Your task to perform on an android device: turn on sleep mode Image 0: 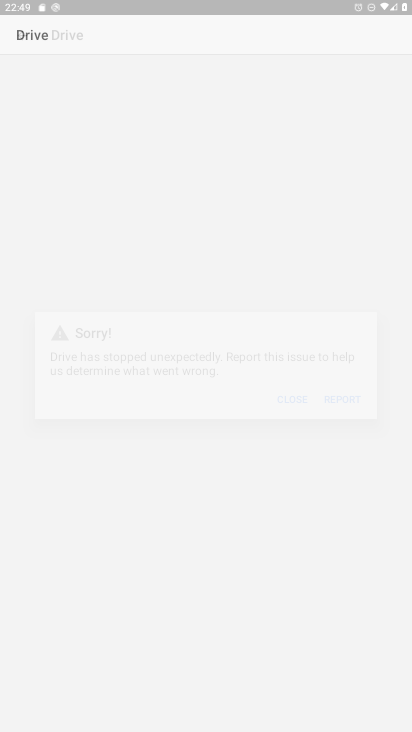
Step 0: drag from (282, 712) to (220, 127)
Your task to perform on an android device: turn on sleep mode Image 1: 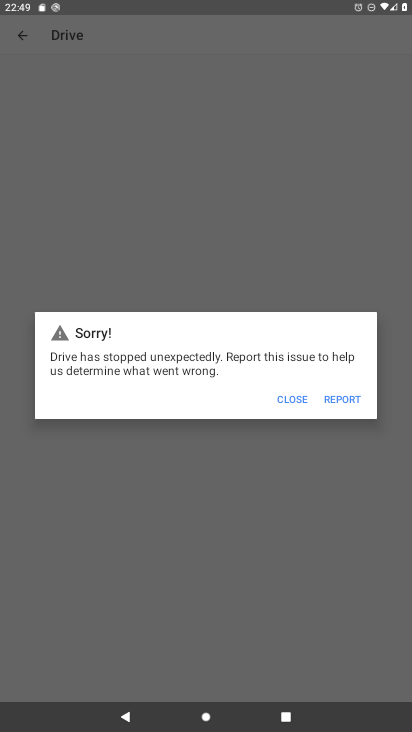
Step 1: press home button
Your task to perform on an android device: turn on sleep mode Image 2: 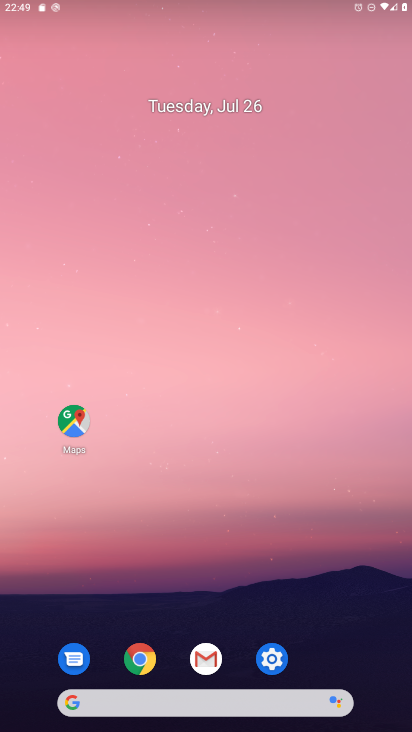
Step 2: drag from (276, 618) to (221, 244)
Your task to perform on an android device: turn on sleep mode Image 3: 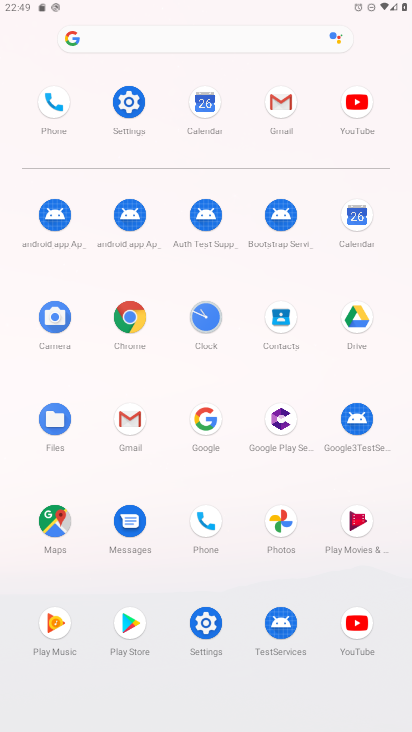
Step 3: click (125, 110)
Your task to perform on an android device: turn on sleep mode Image 4: 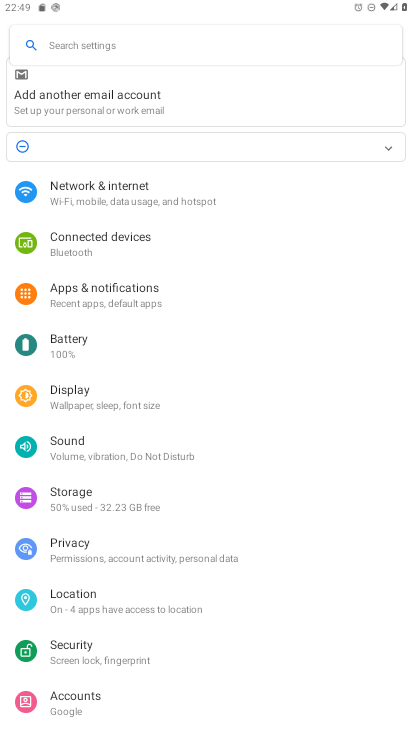
Step 4: click (87, 45)
Your task to perform on an android device: turn on sleep mode Image 5: 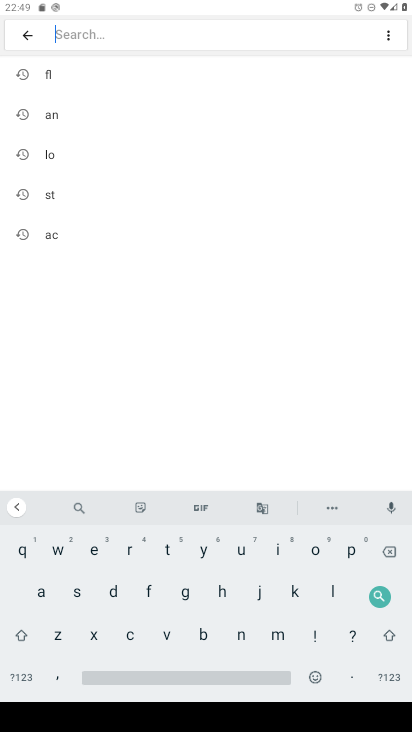
Step 5: click (71, 598)
Your task to perform on an android device: turn on sleep mode Image 6: 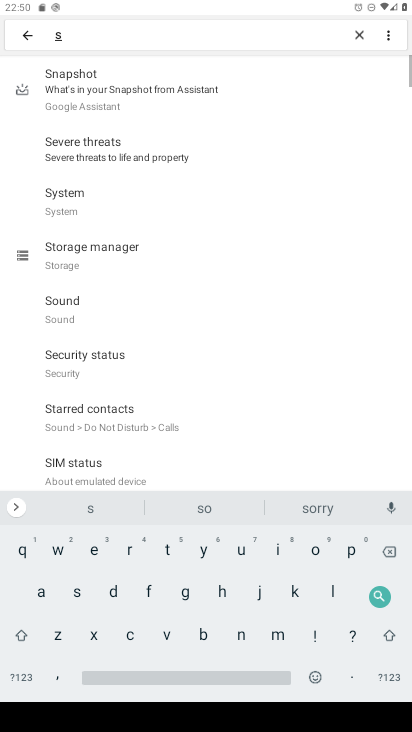
Step 6: click (327, 586)
Your task to perform on an android device: turn on sleep mode Image 7: 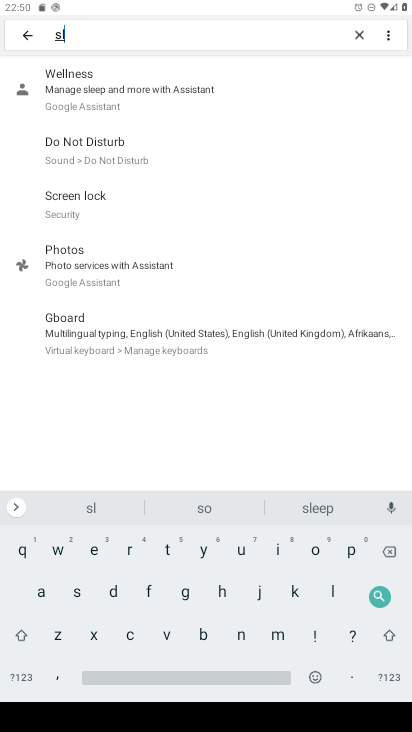
Step 7: click (104, 144)
Your task to perform on an android device: turn on sleep mode Image 8: 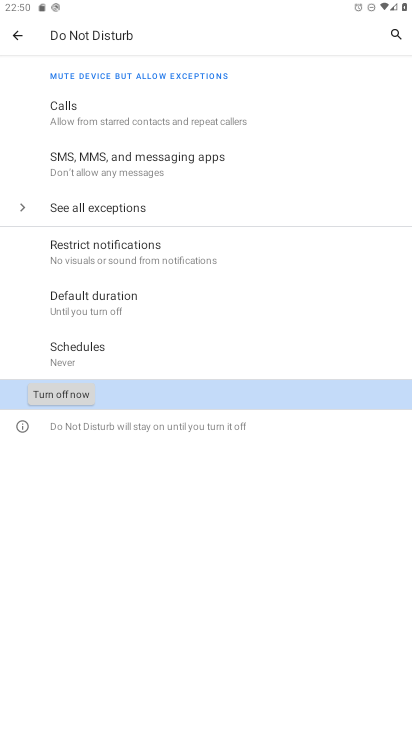
Step 8: click (62, 398)
Your task to perform on an android device: turn on sleep mode Image 9: 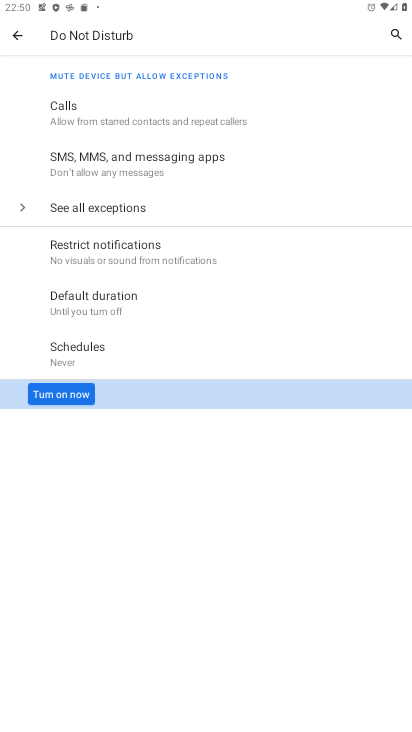
Step 9: click (62, 398)
Your task to perform on an android device: turn on sleep mode Image 10: 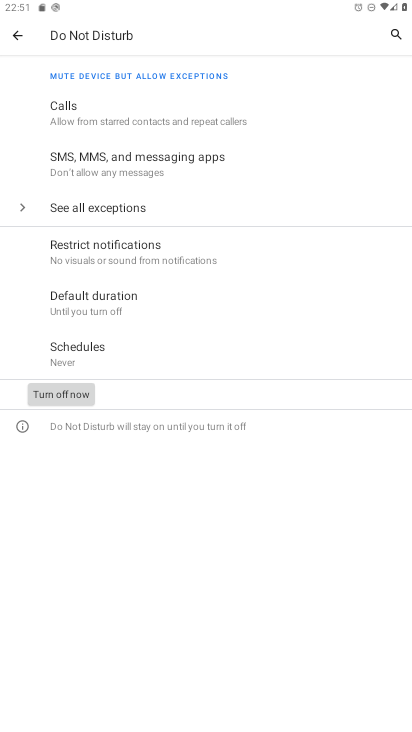
Step 10: task complete